Your task to perform on an android device: Go to Yahoo.com Image 0: 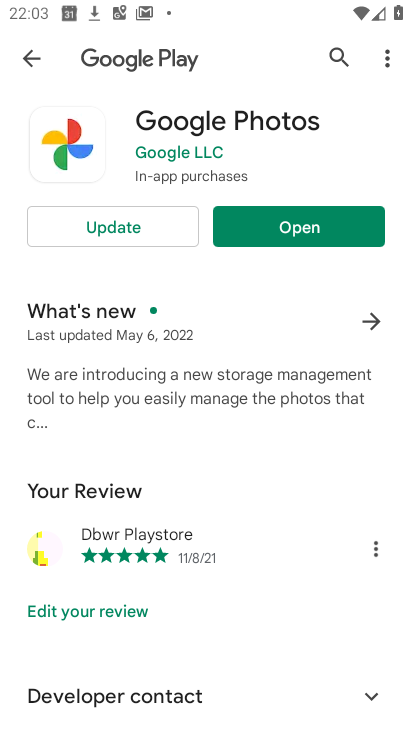
Step 0: press home button
Your task to perform on an android device: Go to Yahoo.com Image 1: 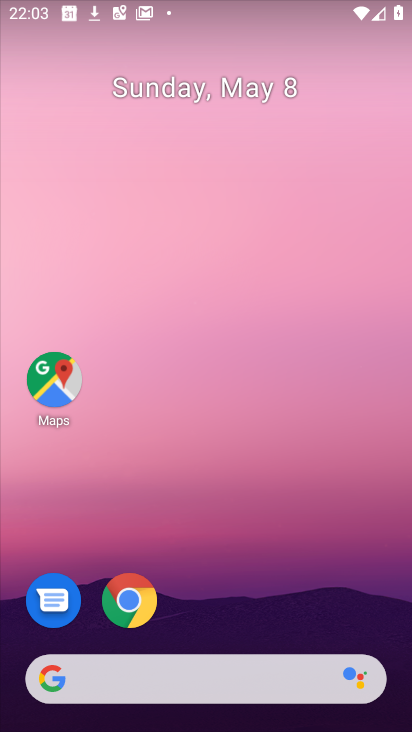
Step 1: drag from (242, 715) to (319, 102)
Your task to perform on an android device: Go to Yahoo.com Image 2: 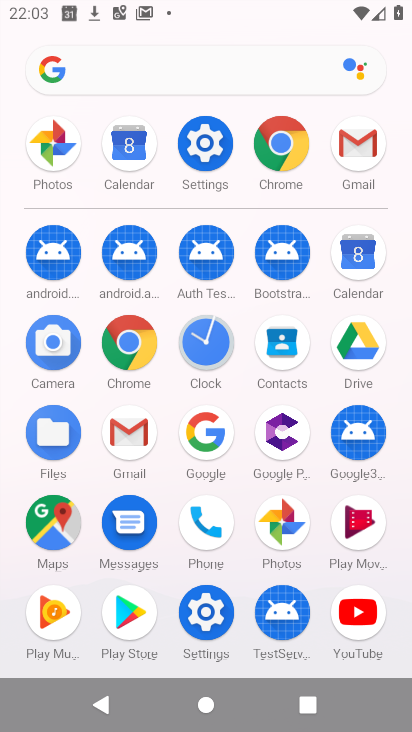
Step 2: click (294, 134)
Your task to perform on an android device: Go to Yahoo.com Image 3: 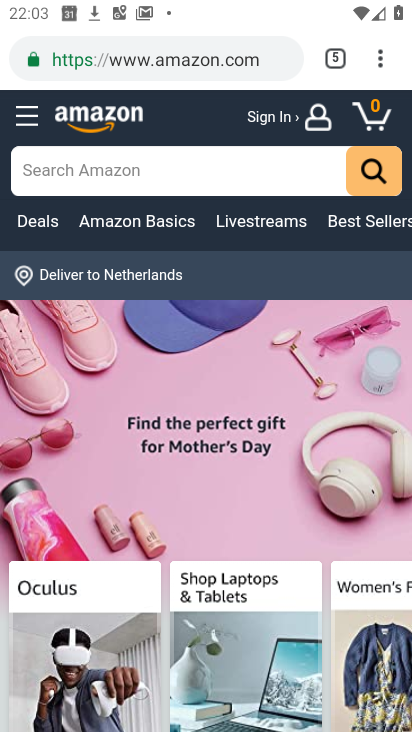
Step 3: click (331, 70)
Your task to perform on an android device: Go to Yahoo.com Image 4: 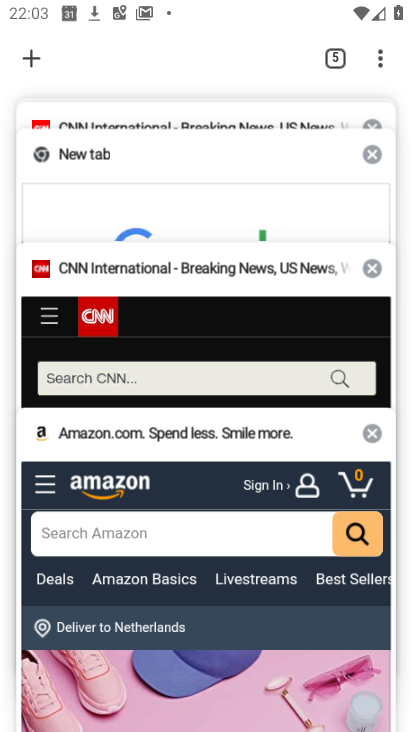
Step 4: click (34, 46)
Your task to perform on an android device: Go to Yahoo.com Image 5: 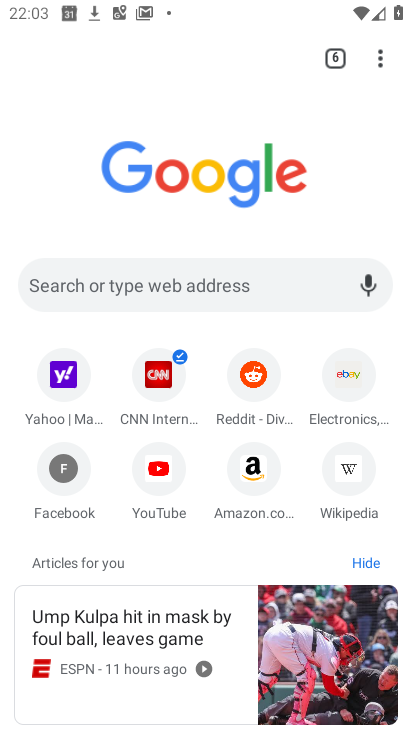
Step 5: click (47, 399)
Your task to perform on an android device: Go to Yahoo.com Image 6: 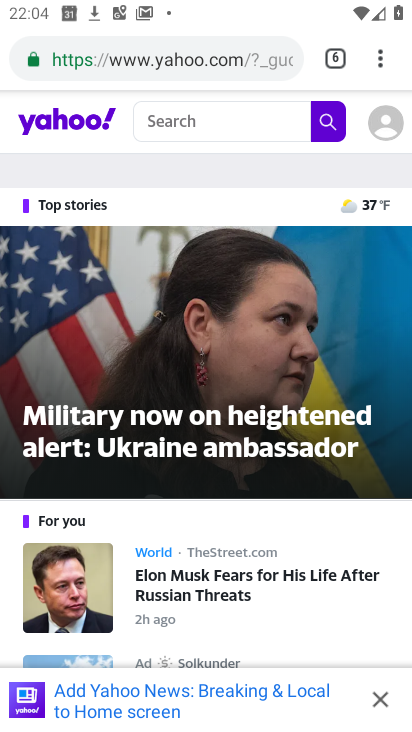
Step 6: task complete